Your task to perform on an android device: find which apps use the phone's location Image 0: 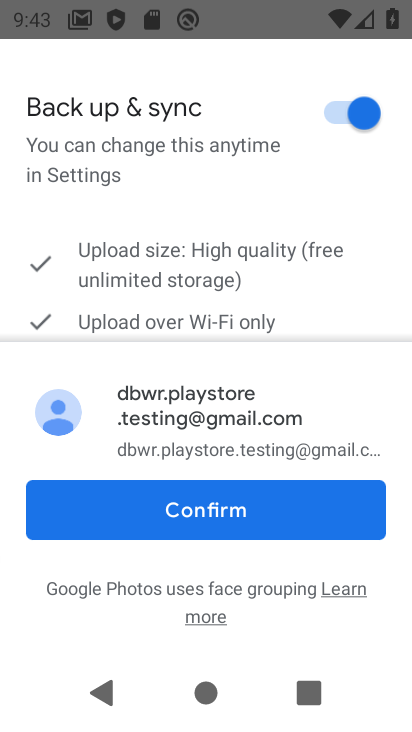
Step 0: press home button
Your task to perform on an android device: find which apps use the phone's location Image 1: 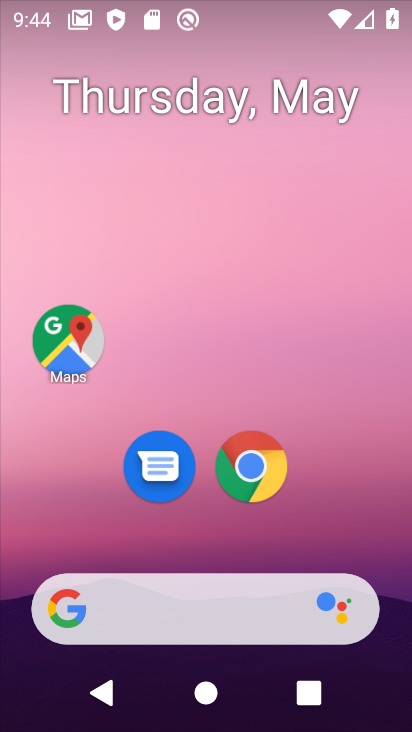
Step 1: drag from (363, 540) to (329, 23)
Your task to perform on an android device: find which apps use the phone's location Image 2: 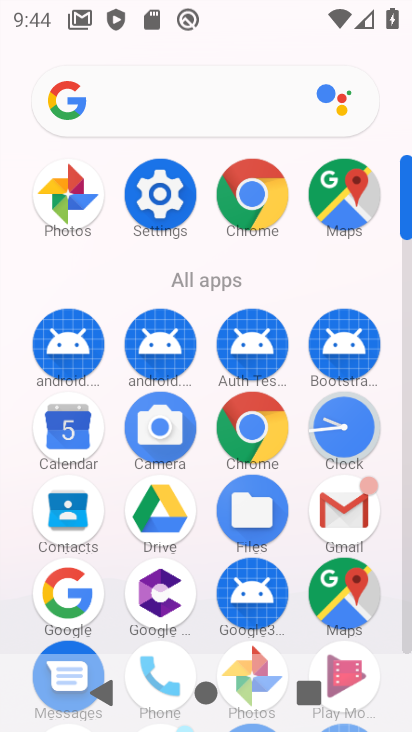
Step 2: click (172, 178)
Your task to perform on an android device: find which apps use the phone's location Image 3: 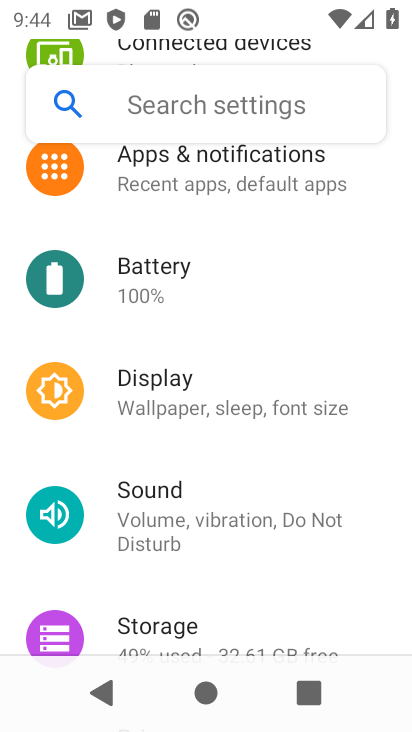
Step 3: drag from (257, 537) to (258, 43)
Your task to perform on an android device: find which apps use the phone's location Image 4: 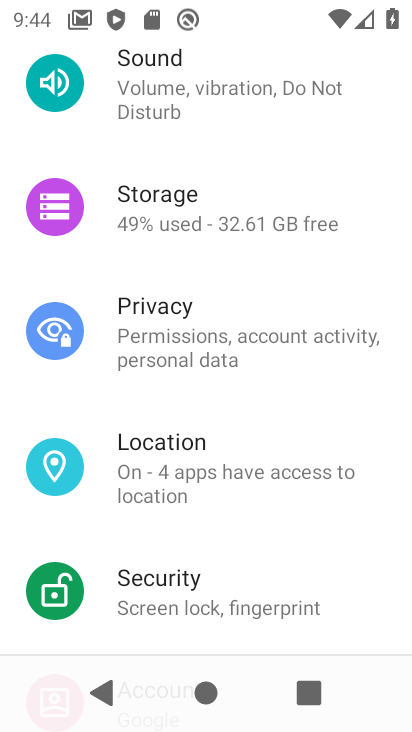
Step 4: click (161, 492)
Your task to perform on an android device: find which apps use the phone's location Image 5: 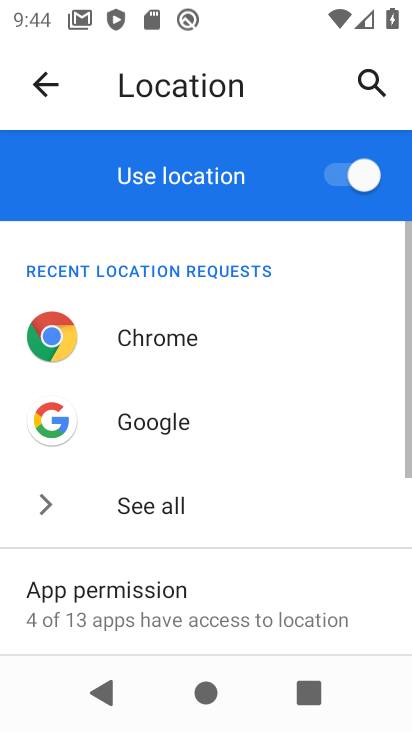
Step 5: drag from (299, 612) to (347, 169)
Your task to perform on an android device: find which apps use the phone's location Image 6: 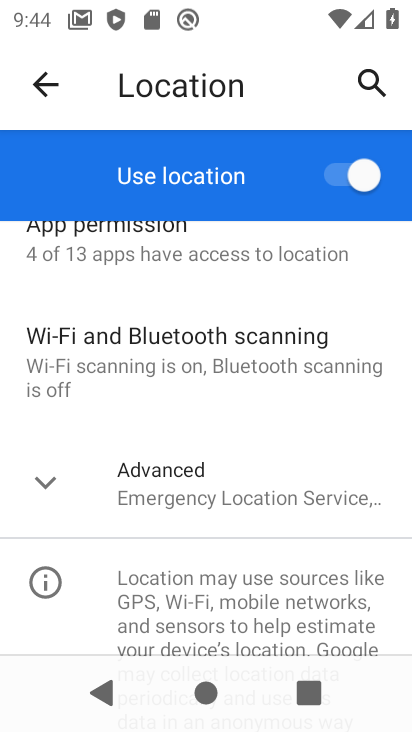
Step 6: click (214, 231)
Your task to perform on an android device: find which apps use the phone's location Image 7: 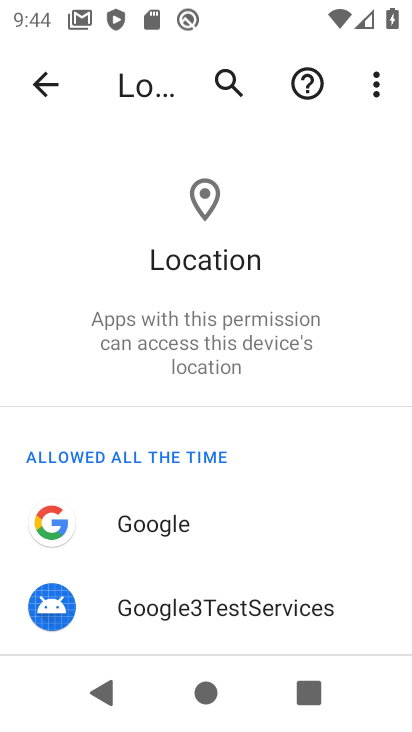
Step 7: task complete